Your task to perform on an android device: move an email to a new category in the gmail app Image 0: 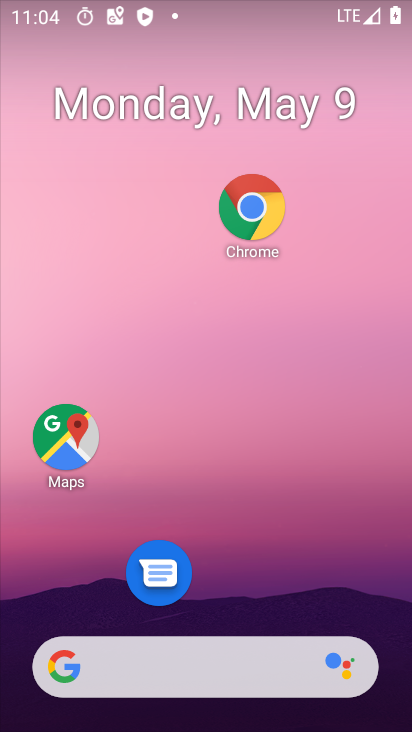
Step 0: drag from (264, 487) to (254, 181)
Your task to perform on an android device: move an email to a new category in the gmail app Image 1: 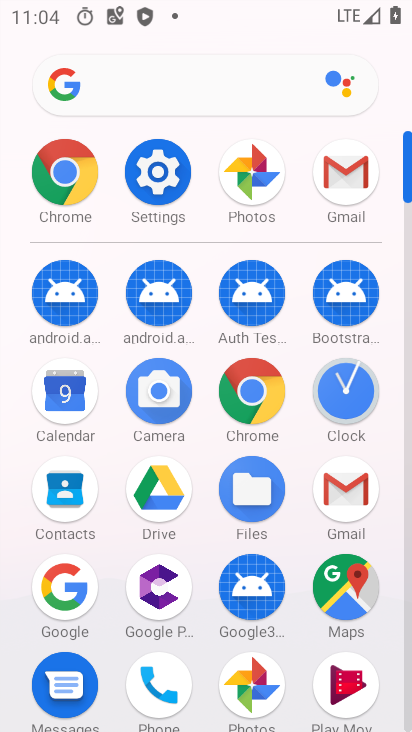
Step 1: click (339, 513)
Your task to perform on an android device: move an email to a new category in the gmail app Image 2: 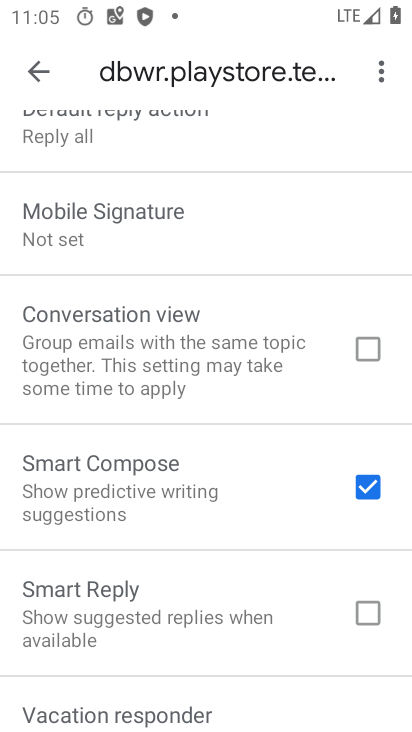
Step 2: press home button
Your task to perform on an android device: move an email to a new category in the gmail app Image 3: 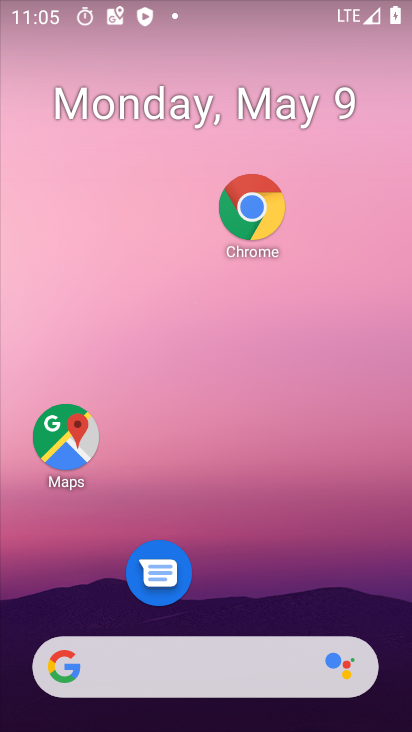
Step 3: drag from (211, 614) to (297, 118)
Your task to perform on an android device: move an email to a new category in the gmail app Image 4: 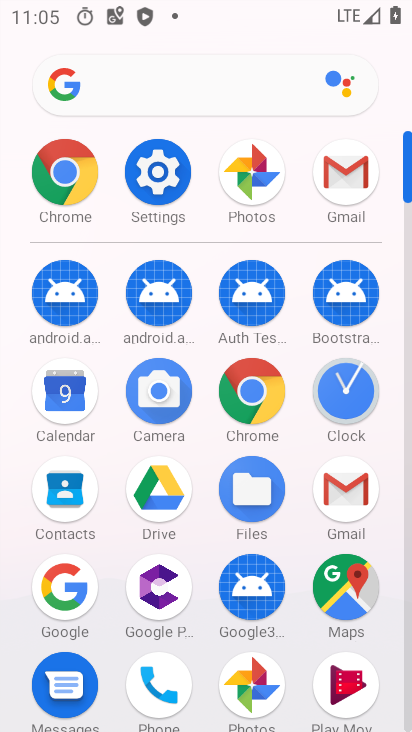
Step 4: click (357, 508)
Your task to perform on an android device: move an email to a new category in the gmail app Image 5: 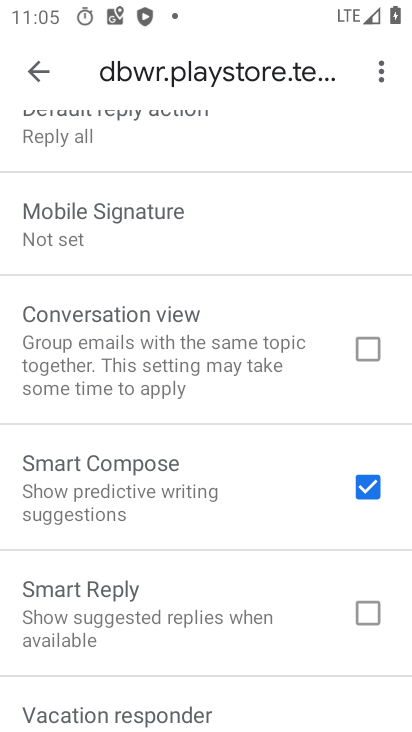
Step 5: click (36, 81)
Your task to perform on an android device: move an email to a new category in the gmail app Image 6: 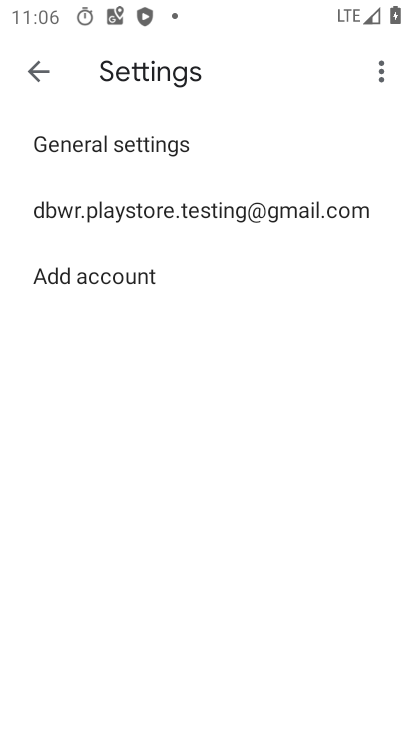
Step 6: click (35, 80)
Your task to perform on an android device: move an email to a new category in the gmail app Image 7: 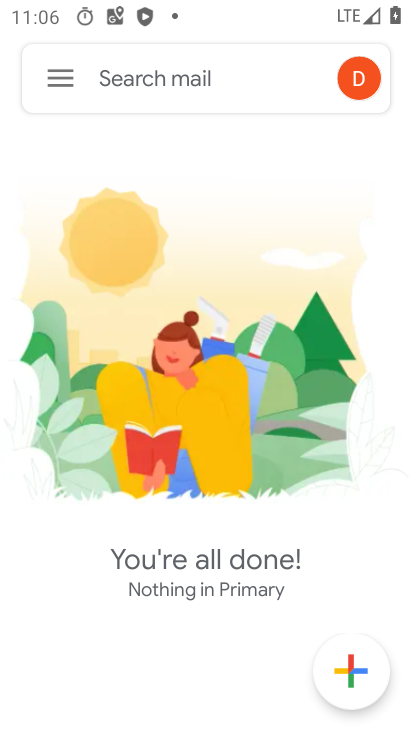
Step 7: click (66, 92)
Your task to perform on an android device: move an email to a new category in the gmail app Image 8: 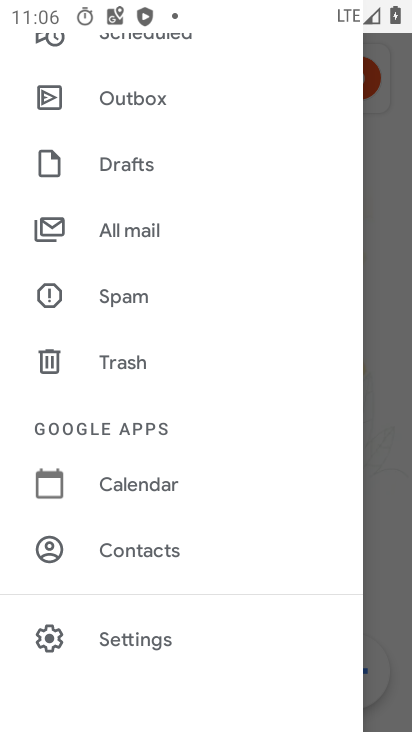
Step 8: drag from (184, 576) to (199, 535)
Your task to perform on an android device: move an email to a new category in the gmail app Image 9: 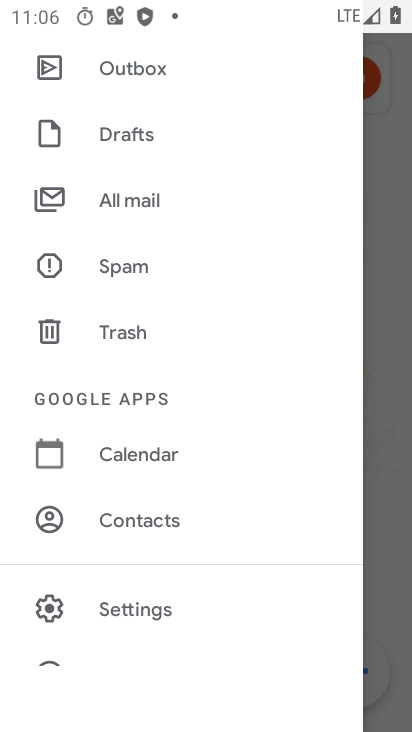
Step 9: click (183, 180)
Your task to perform on an android device: move an email to a new category in the gmail app Image 10: 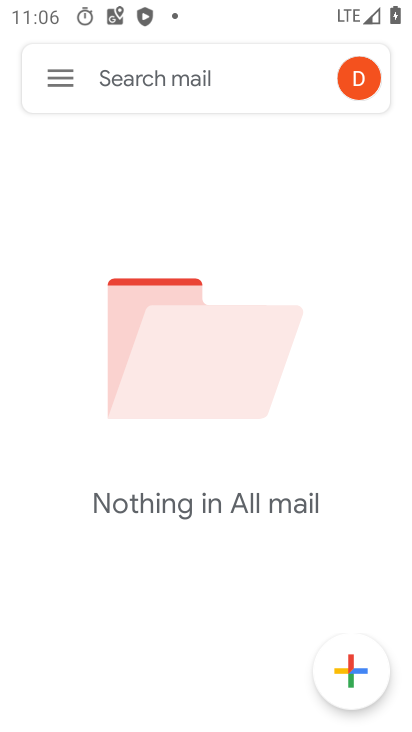
Step 10: task complete